Your task to perform on an android device: Go to Google Image 0: 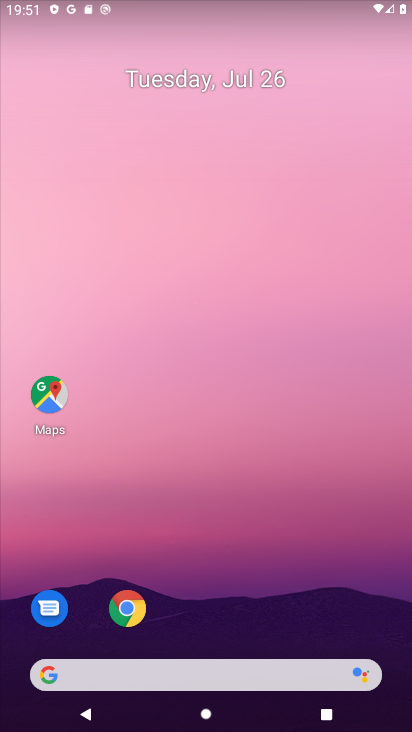
Step 0: drag from (222, 620) to (163, 131)
Your task to perform on an android device: Go to Google Image 1: 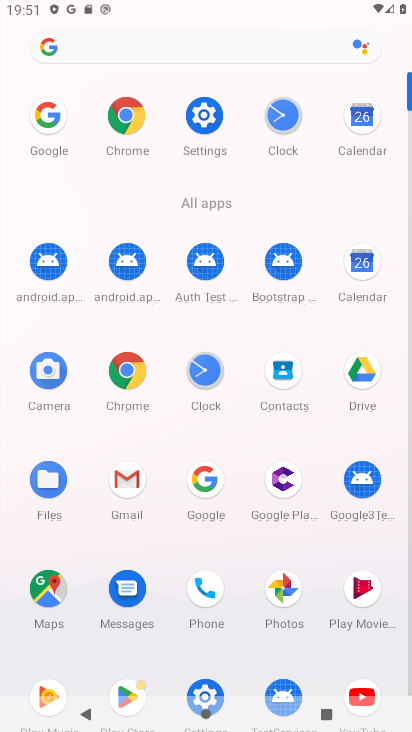
Step 1: click (211, 491)
Your task to perform on an android device: Go to Google Image 2: 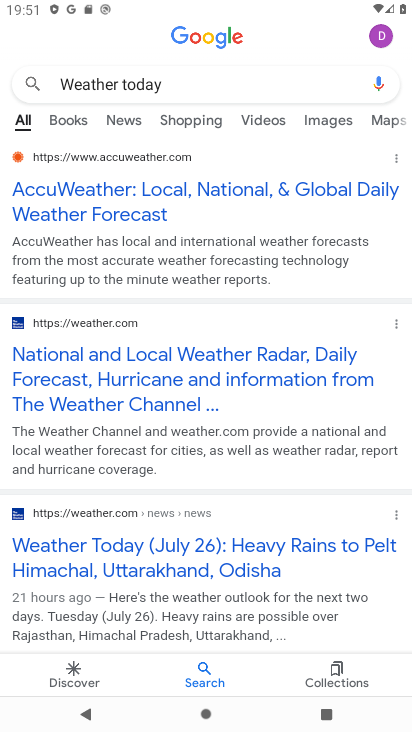
Step 2: task complete